Your task to perform on an android device: What is the recent news? Image 0: 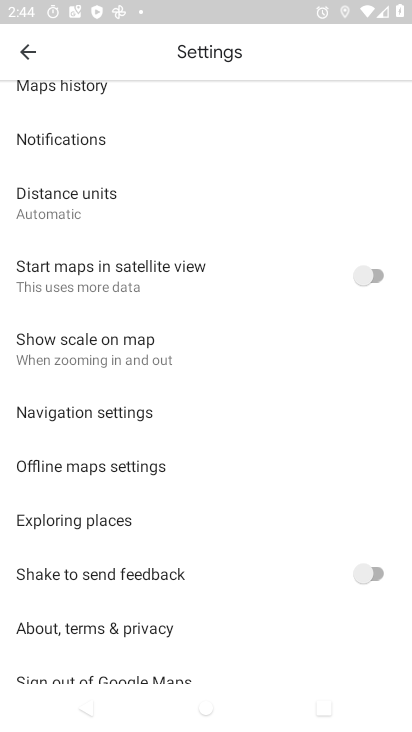
Step 0: press home button
Your task to perform on an android device: What is the recent news? Image 1: 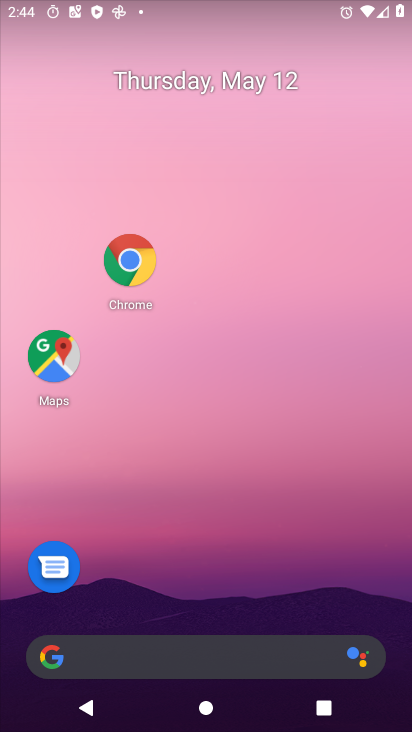
Step 1: drag from (207, 631) to (173, 295)
Your task to perform on an android device: What is the recent news? Image 2: 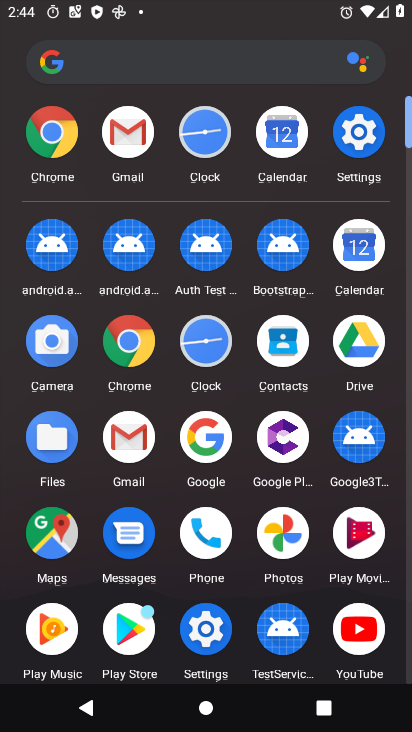
Step 2: click (205, 437)
Your task to perform on an android device: What is the recent news? Image 3: 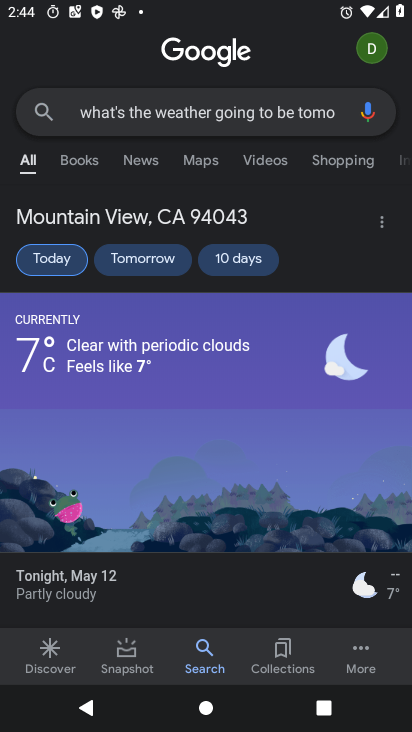
Step 3: click (337, 117)
Your task to perform on an android device: What is the recent news? Image 4: 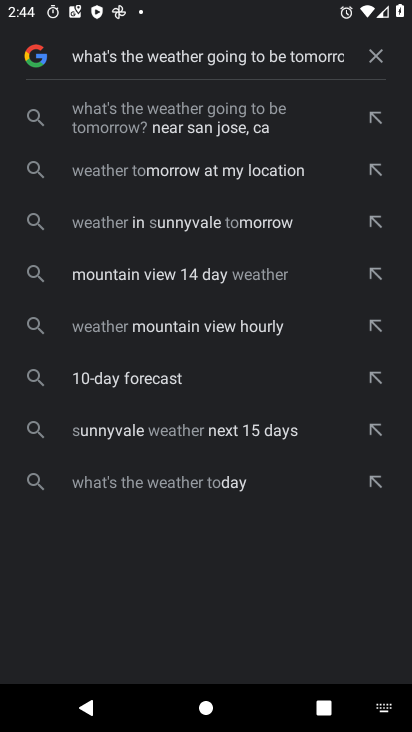
Step 4: click (381, 56)
Your task to perform on an android device: What is the recent news? Image 5: 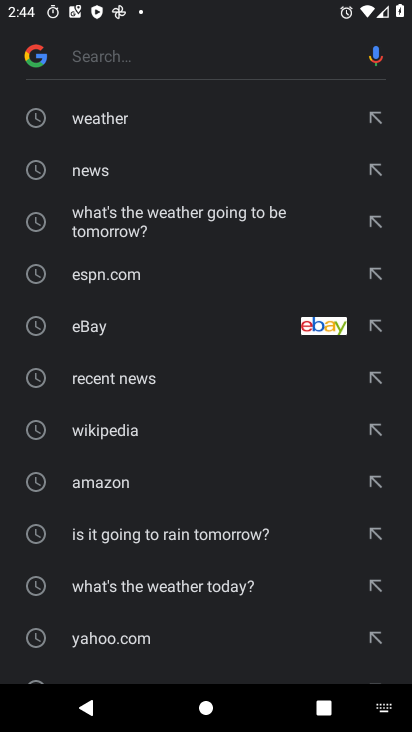
Step 5: click (121, 378)
Your task to perform on an android device: What is the recent news? Image 6: 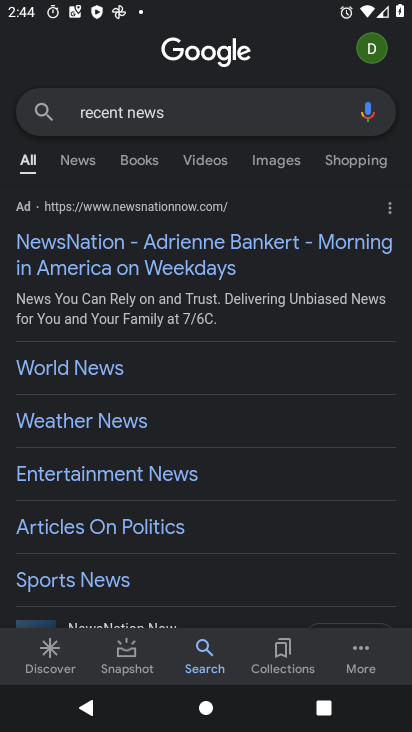
Step 6: task complete